Your task to perform on an android device: toggle priority inbox in the gmail app Image 0: 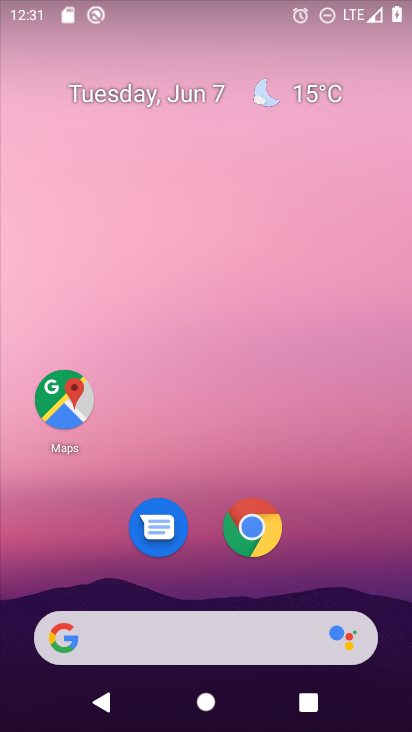
Step 0: drag from (359, 553) to (370, 118)
Your task to perform on an android device: toggle priority inbox in the gmail app Image 1: 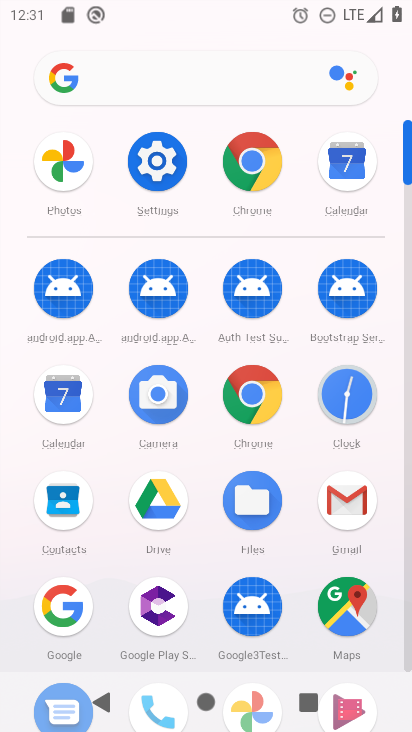
Step 1: click (357, 510)
Your task to perform on an android device: toggle priority inbox in the gmail app Image 2: 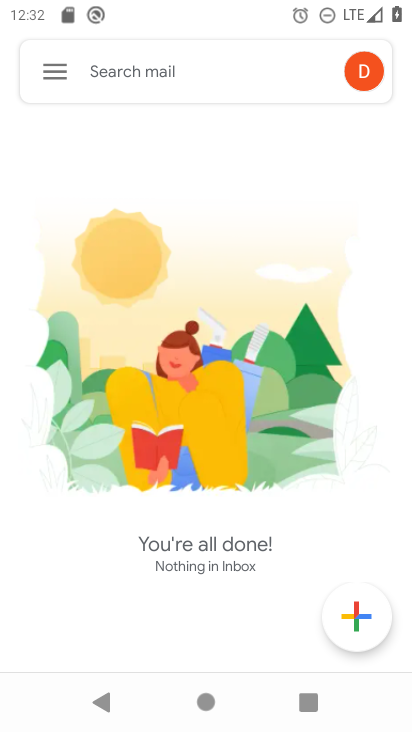
Step 2: click (49, 71)
Your task to perform on an android device: toggle priority inbox in the gmail app Image 3: 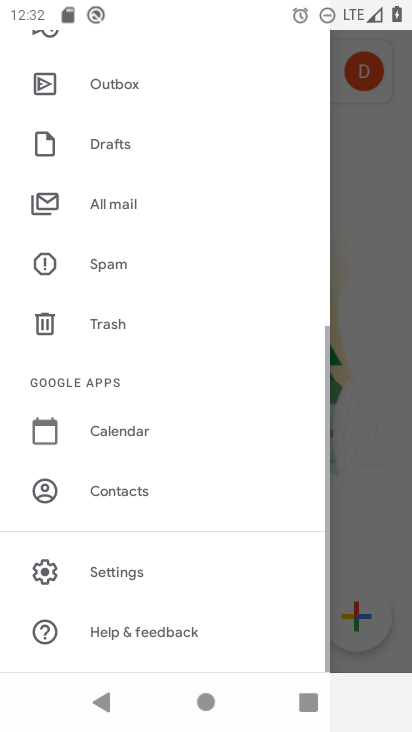
Step 3: drag from (242, 290) to (243, 175)
Your task to perform on an android device: toggle priority inbox in the gmail app Image 4: 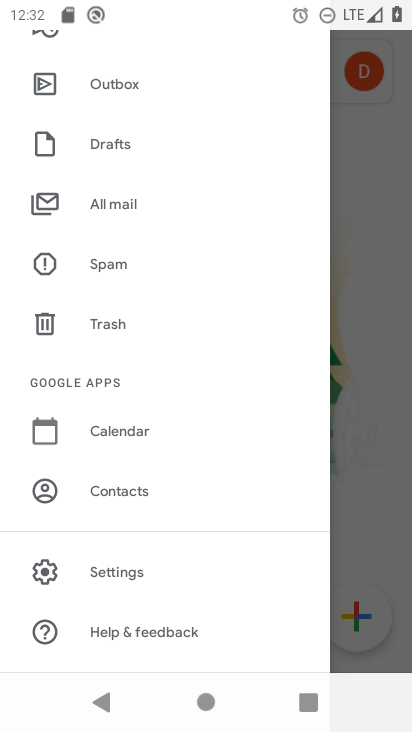
Step 4: drag from (246, 149) to (253, 375)
Your task to perform on an android device: toggle priority inbox in the gmail app Image 5: 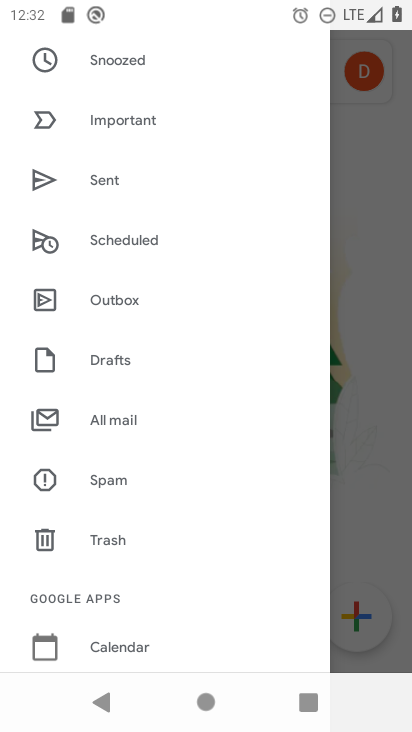
Step 5: drag from (256, 149) to (259, 352)
Your task to perform on an android device: toggle priority inbox in the gmail app Image 6: 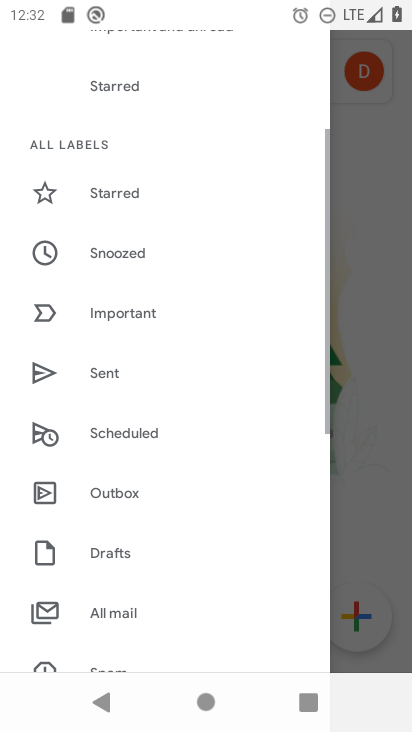
Step 6: drag from (255, 185) to (254, 351)
Your task to perform on an android device: toggle priority inbox in the gmail app Image 7: 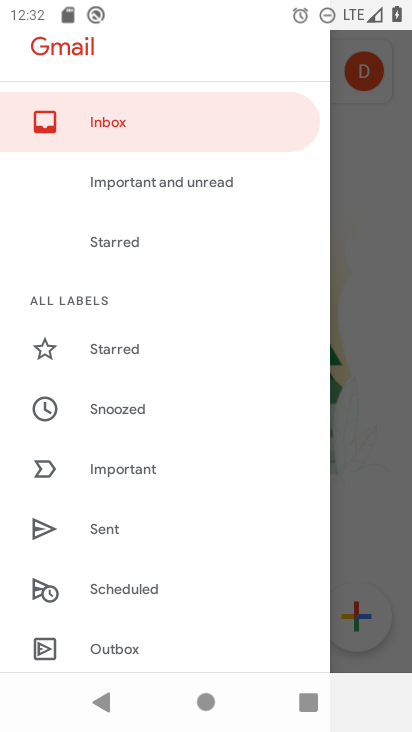
Step 7: drag from (257, 409) to (242, 267)
Your task to perform on an android device: toggle priority inbox in the gmail app Image 8: 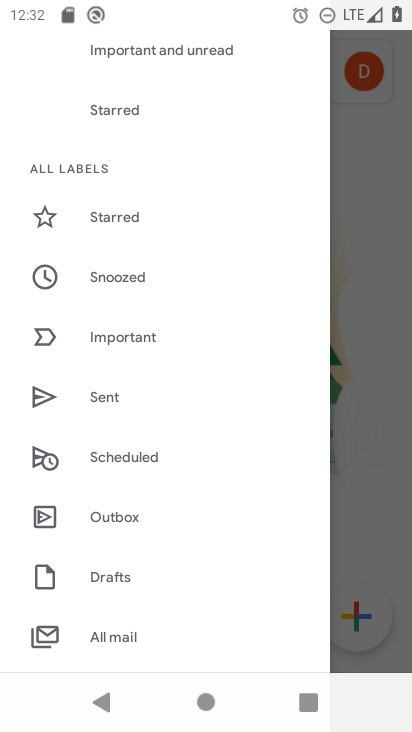
Step 8: drag from (233, 427) to (240, 240)
Your task to perform on an android device: toggle priority inbox in the gmail app Image 9: 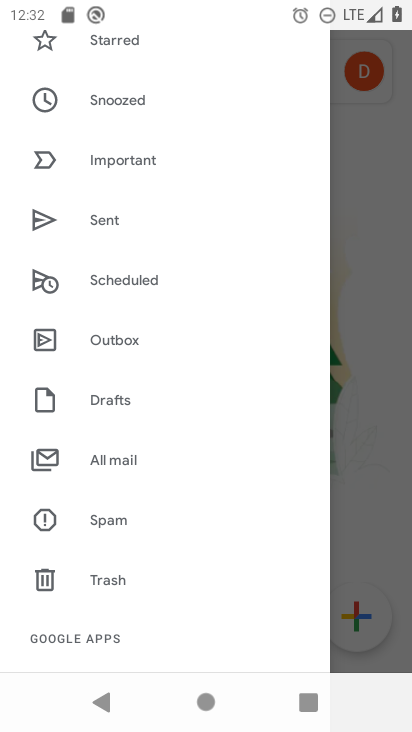
Step 9: drag from (241, 465) to (241, 272)
Your task to perform on an android device: toggle priority inbox in the gmail app Image 10: 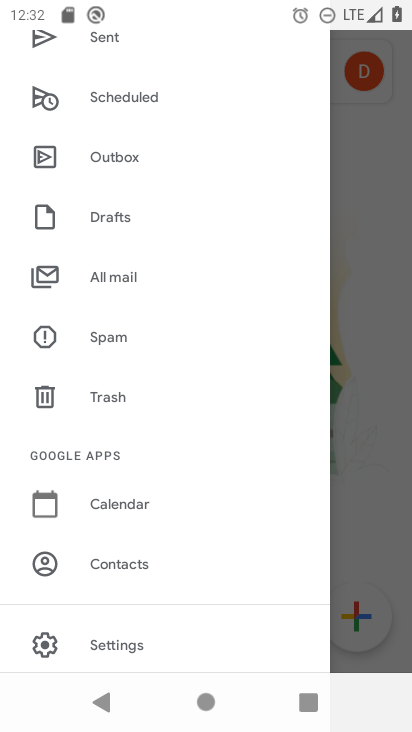
Step 10: drag from (253, 463) to (252, 262)
Your task to perform on an android device: toggle priority inbox in the gmail app Image 11: 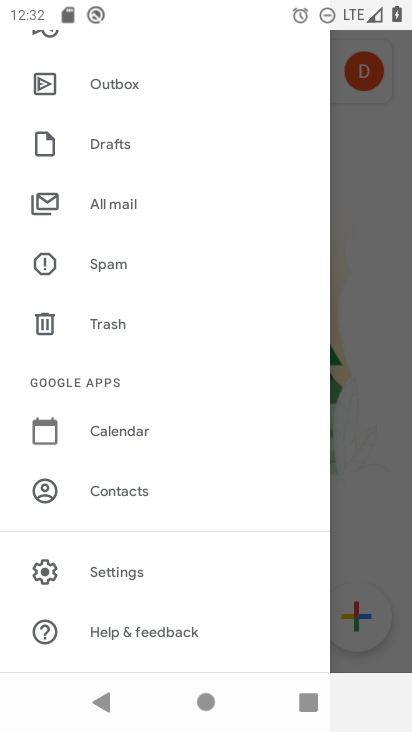
Step 11: drag from (261, 526) to (248, 295)
Your task to perform on an android device: toggle priority inbox in the gmail app Image 12: 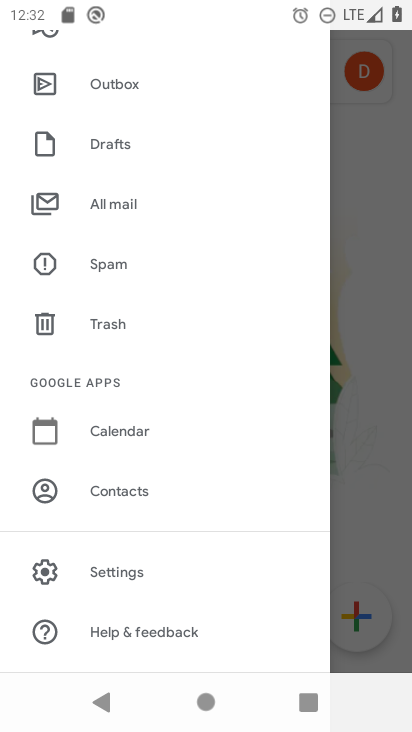
Step 12: click (147, 572)
Your task to perform on an android device: toggle priority inbox in the gmail app Image 13: 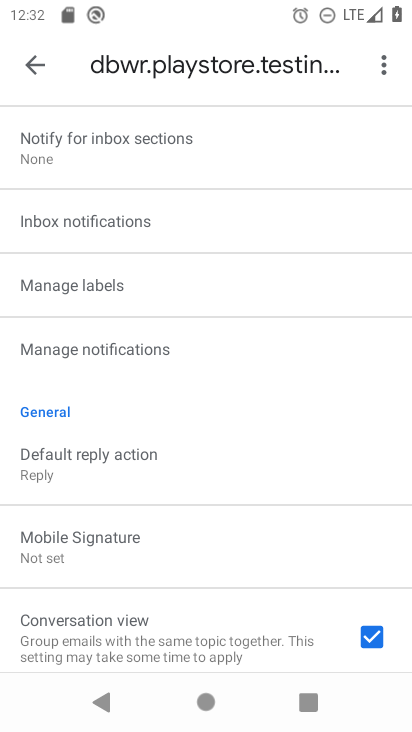
Step 13: task complete